Your task to perform on an android device: Open the calendar app, open the side menu, and click the "Day" option Image 0: 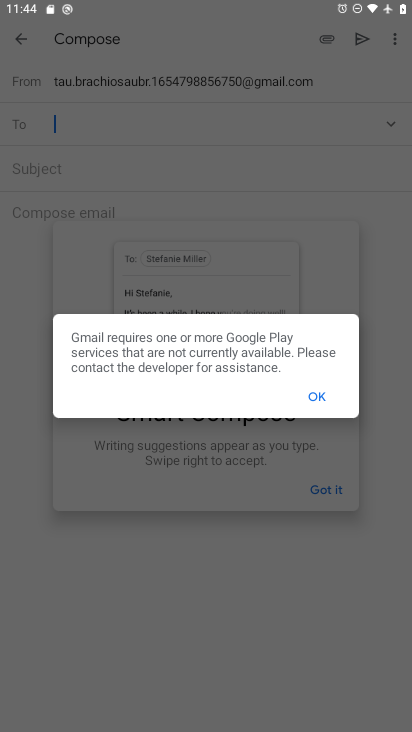
Step 0: click (317, 395)
Your task to perform on an android device: Open the calendar app, open the side menu, and click the "Day" option Image 1: 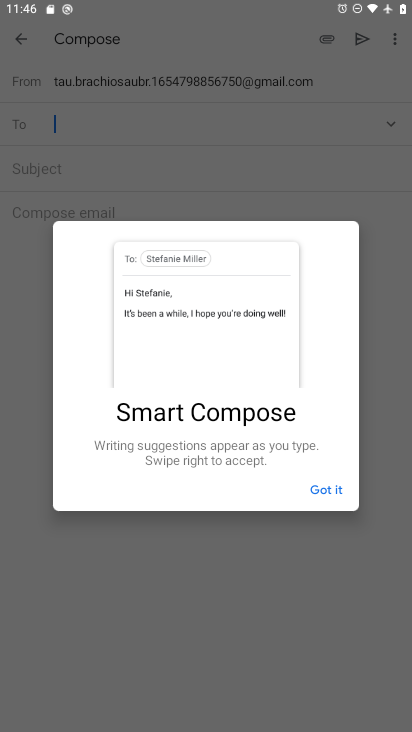
Step 1: press home button
Your task to perform on an android device: Open the calendar app, open the side menu, and click the "Day" option Image 2: 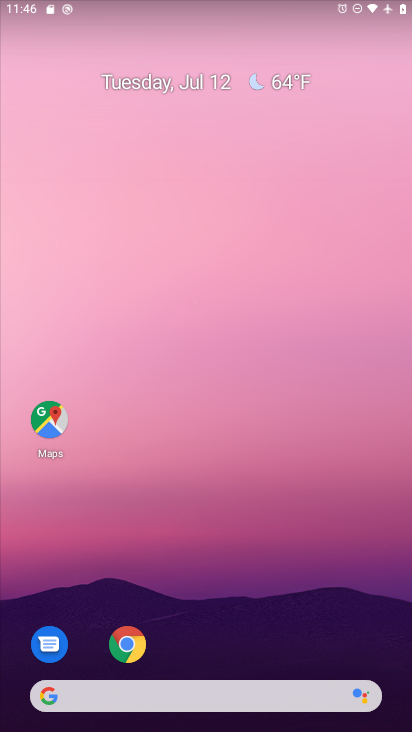
Step 2: drag from (220, 642) to (259, 110)
Your task to perform on an android device: Open the calendar app, open the side menu, and click the "Day" option Image 3: 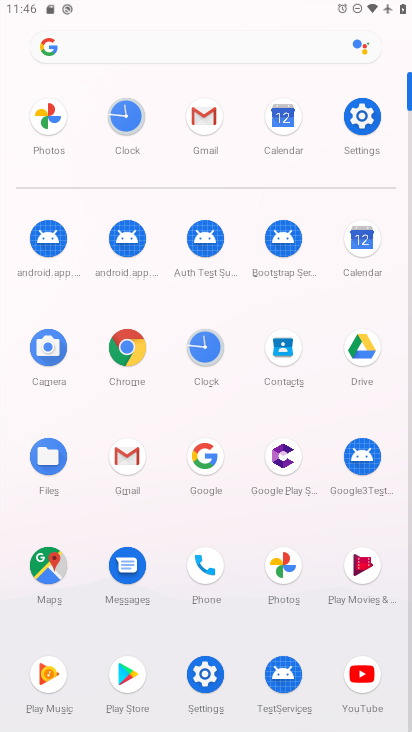
Step 3: click (304, 141)
Your task to perform on an android device: Open the calendar app, open the side menu, and click the "Day" option Image 4: 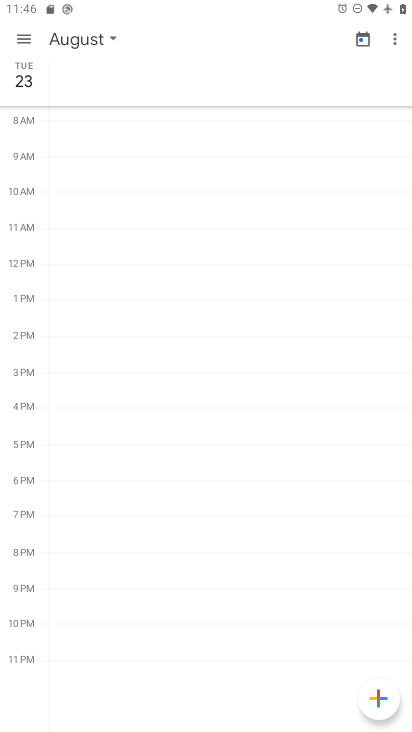
Step 4: click (31, 45)
Your task to perform on an android device: Open the calendar app, open the side menu, and click the "Day" option Image 5: 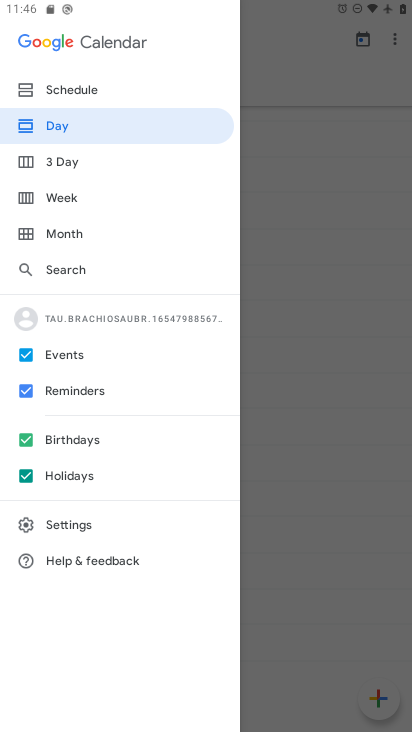
Step 5: click (74, 119)
Your task to perform on an android device: Open the calendar app, open the side menu, and click the "Day" option Image 6: 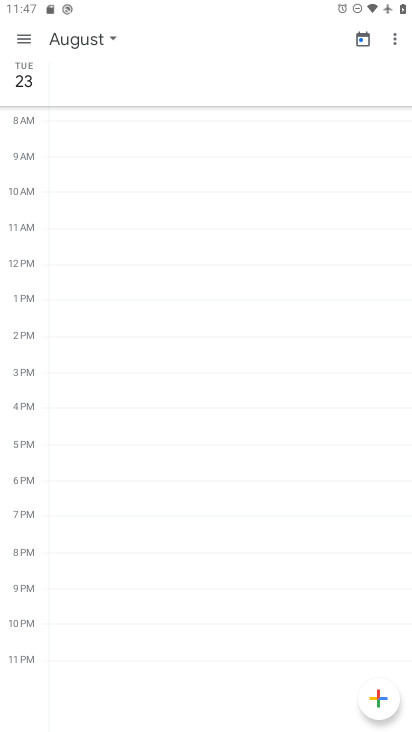
Step 6: task complete